Your task to perform on an android device: Do I have any events today? Image 0: 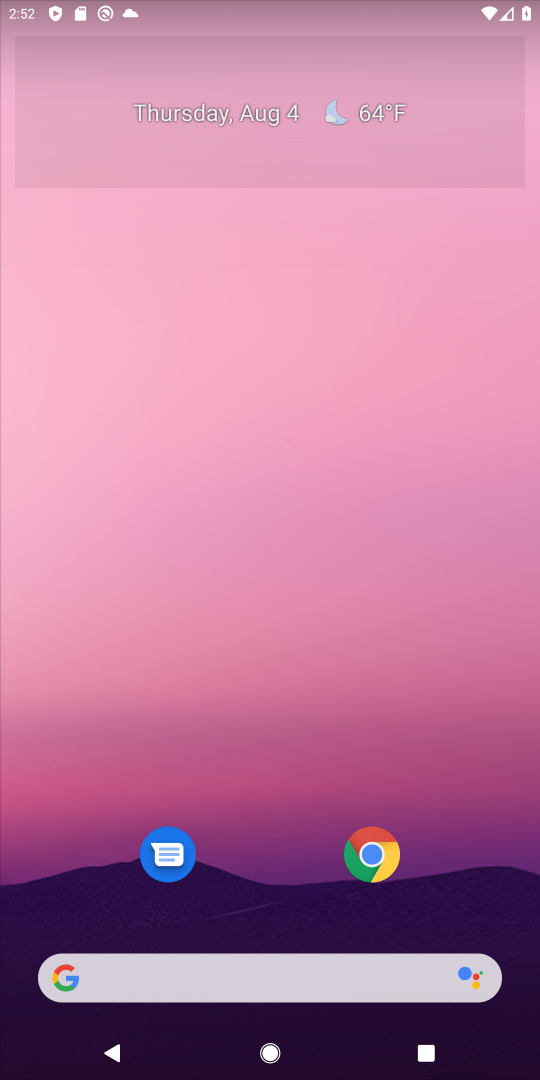
Step 0: drag from (262, 697) to (337, 5)
Your task to perform on an android device: Do I have any events today? Image 1: 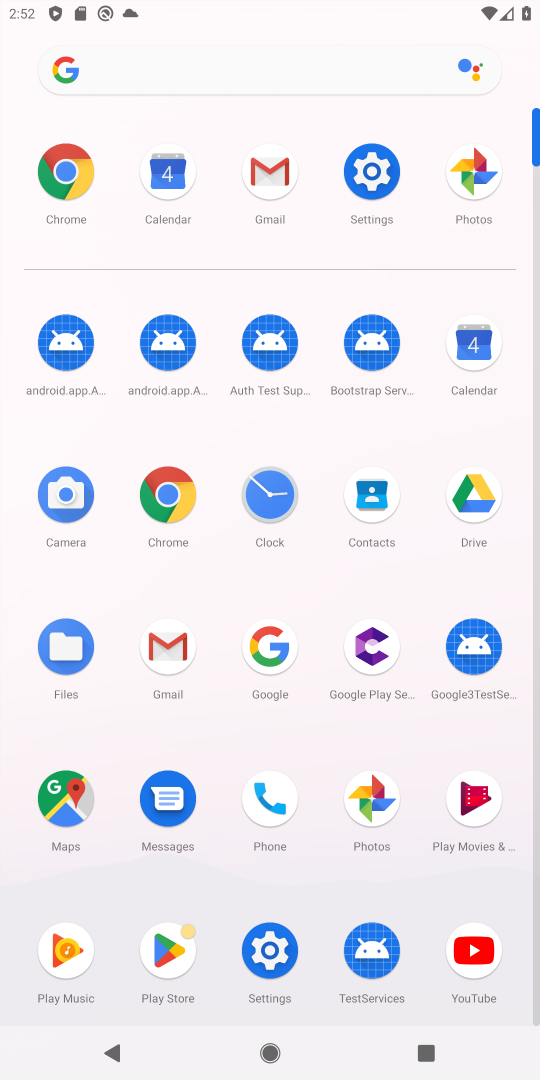
Step 1: click (472, 359)
Your task to perform on an android device: Do I have any events today? Image 2: 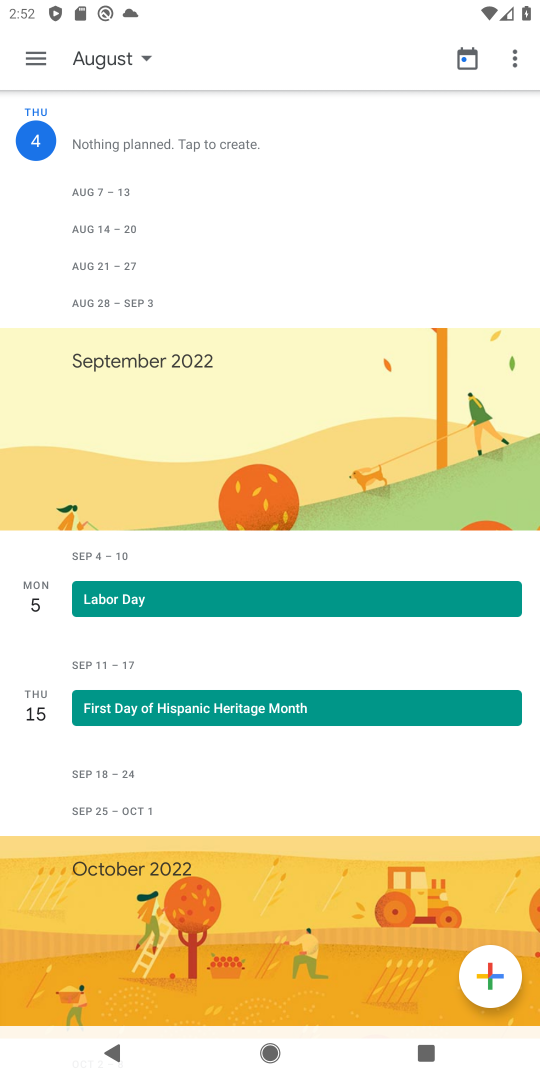
Step 2: task complete